Your task to perform on an android device: Open Wikipedia Image 0: 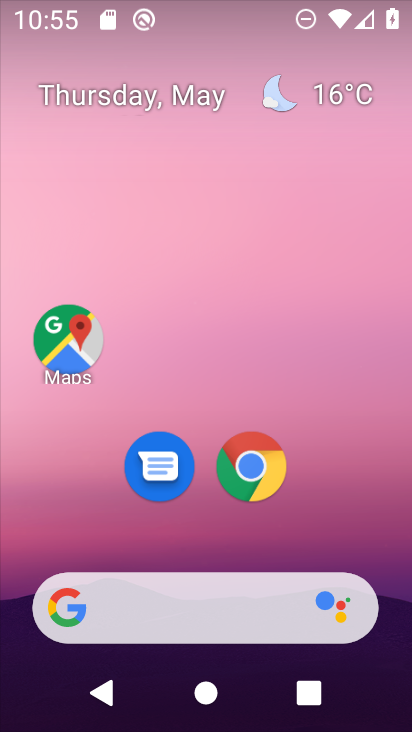
Step 0: click (270, 467)
Your task to perform on an android device: Open Wikipedia Image 1: 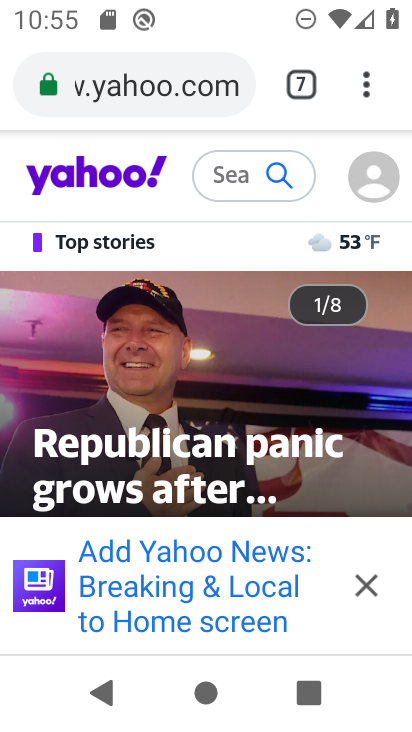
Step 1: click (352, 83)
Your task to perform on an android device: Open Wikipedia Image 2: 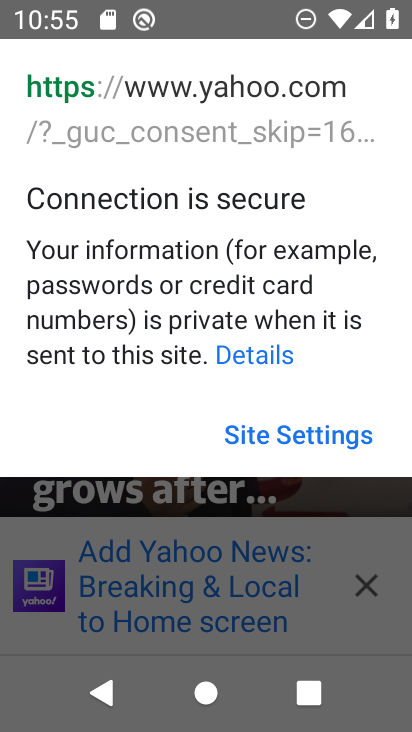
Step 2: press back button
Your task to perform on an android device: Open Wikipedia Image 3: 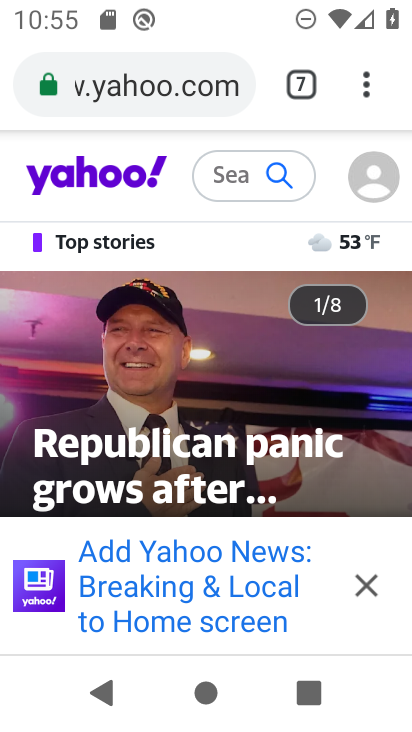
Step 3: click (369, 71)
Your task to perform on an android device: Open Wikipedia Image 4: 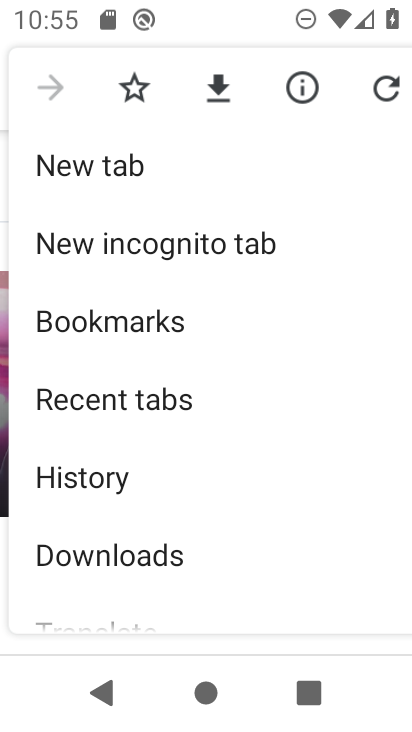
Step 4: click (124, 172)
Your task to perform on an android device: Open Wikipedia Image 5: 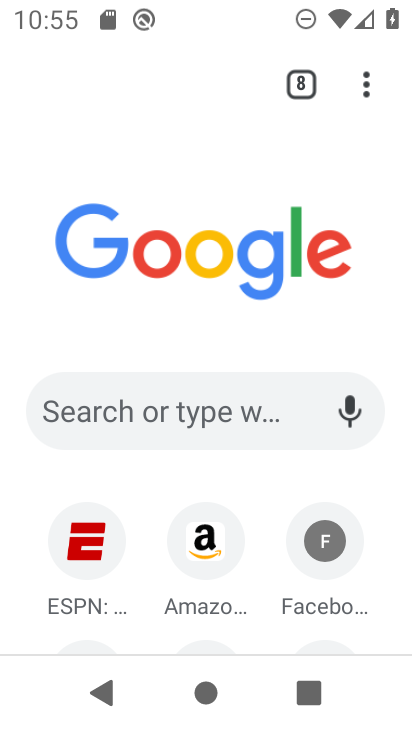
Step 5: drag from (184, 579) to (223, 216)
Your task to perform on an android device: Open Wikipedia Image 6: 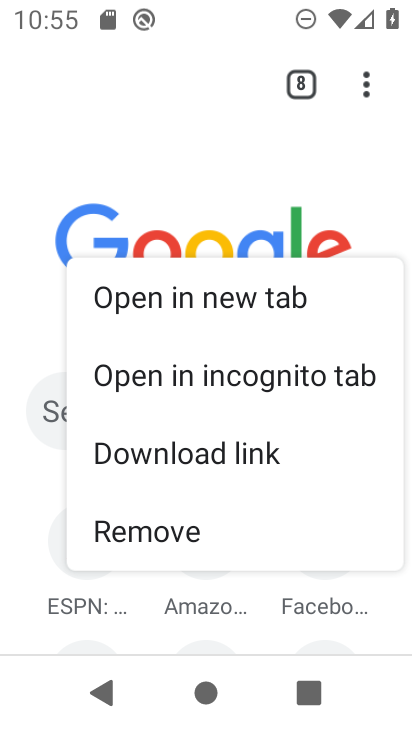
Step 6: drag from (220, 486) to (271, 232)
Your task to perform on an android device: Open Wikipedia Image 7: 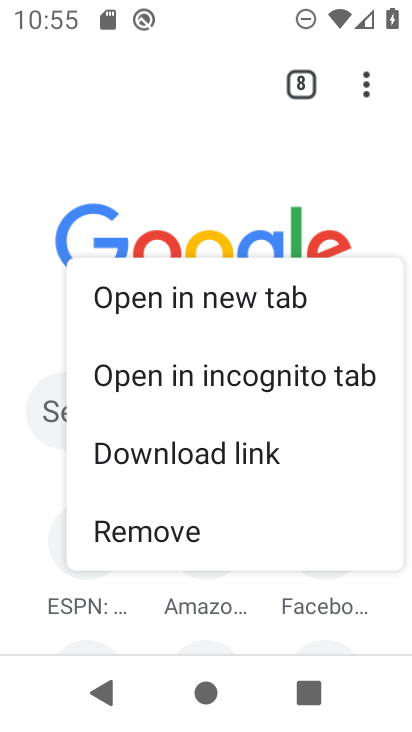
Step 7: click (29, 492)
Your task to perform on an android device: Open Wikipedia Image 8: 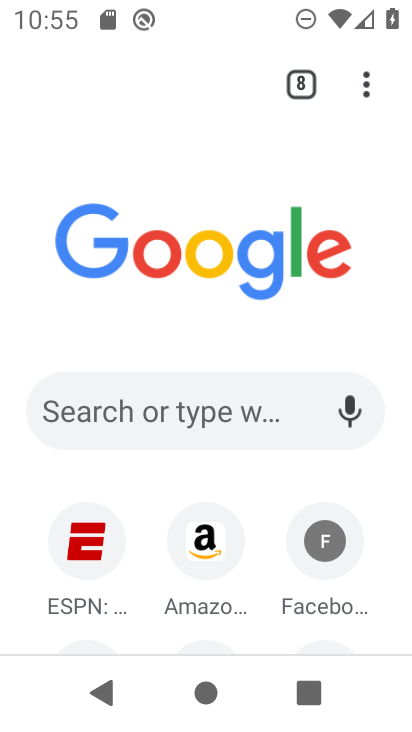
Step 8: drag from (40, 479) to (70, 303)
Your task to perform on an android device: Open Wikipedia Image 9: 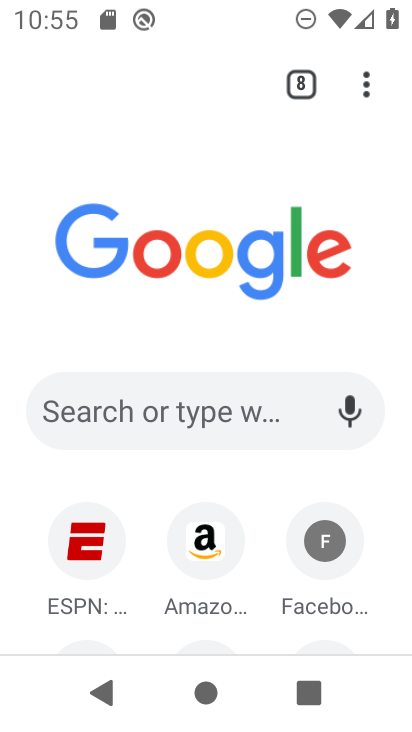
Step 9: drag from (42, 506) to (57, 278)
Your task to perform on an android device: Open Wikipedia Image 10: 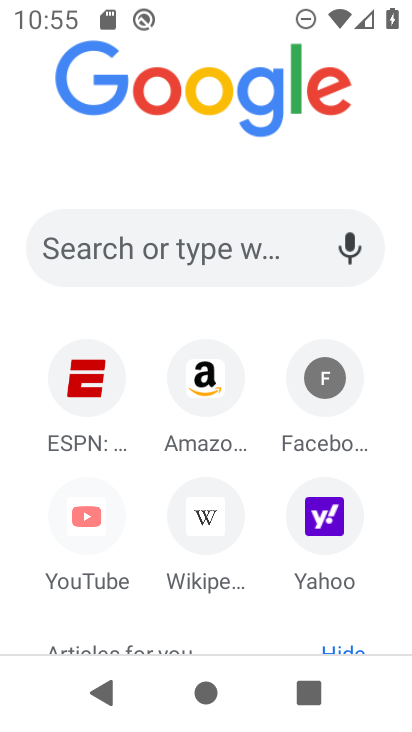
Step 10: drag from (23, 555) to (67, 237)
Your task to perform on an android device: Open Wikipedia Image 11: 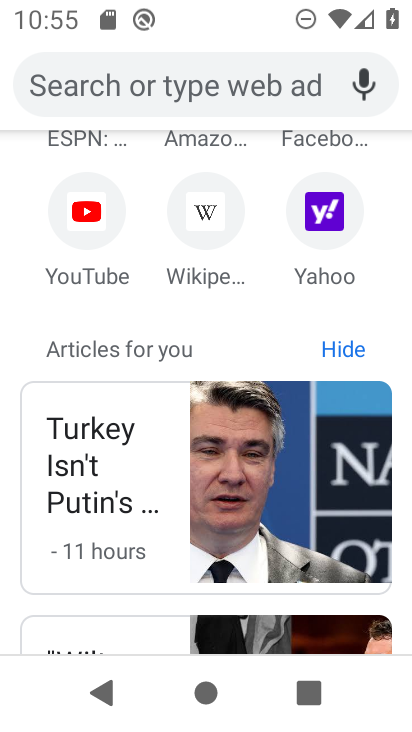
Step 11: click (202, 211)
Your task to perform on an android device: Open Wikipedia Image 12: 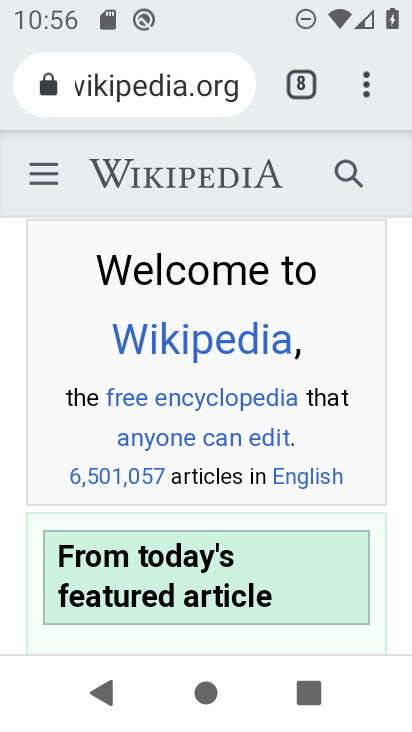
Step 12: task complete